Your task to perform on an android device: turn on priority inbox in the gmail app Image 0: 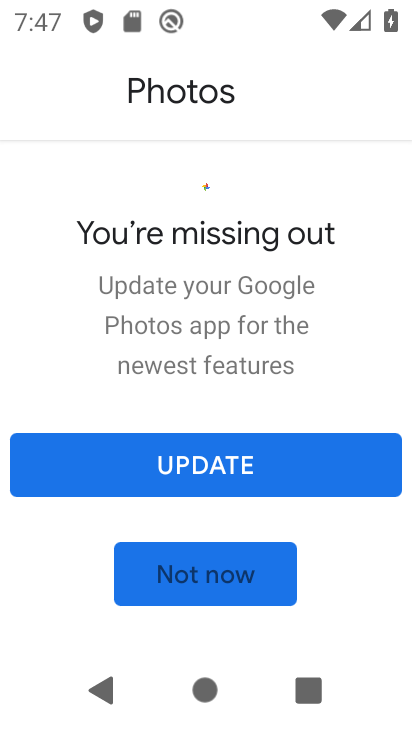
Step 0: press home button
Your task to perform on an android device: turn on priority inbox in the gmail app Image 1: 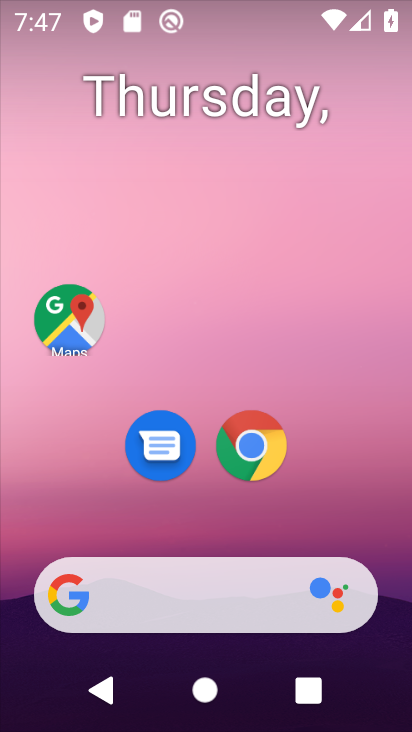
Step 1: drag from (346, 536) to (411, 502)
Your task to perform on an android device: turn on priority inbox in the gmail app Image 2: 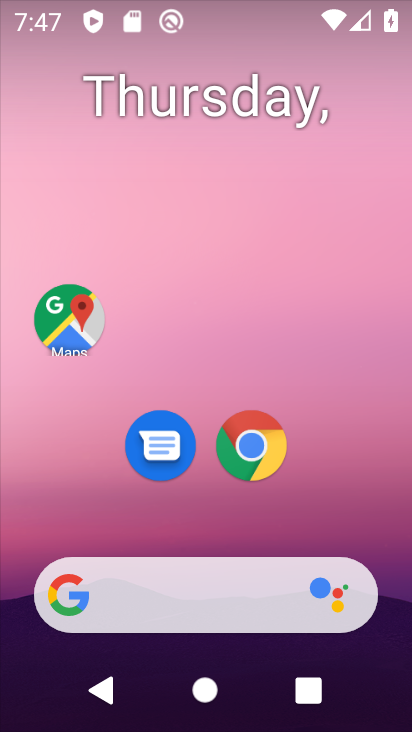
Step 2: drag from (331, 525) to (357, 1)
Your task to perform on an android device: turn on priority inbox in the gmail app Image 3: 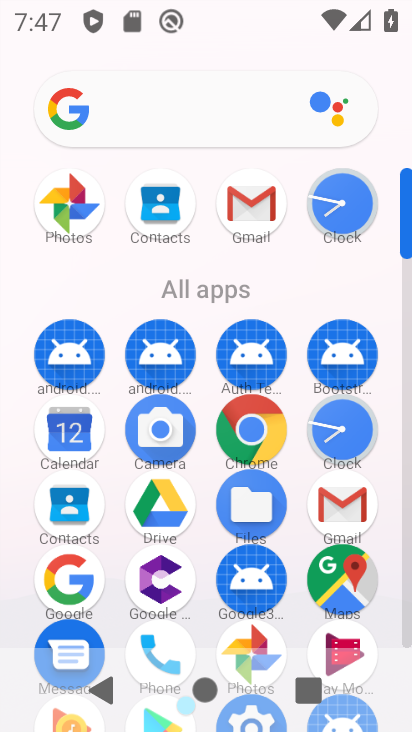
Step 3: click (247, 212)
Your task to perform on an android device: turn on priority inbox in the gmail app Image 4: 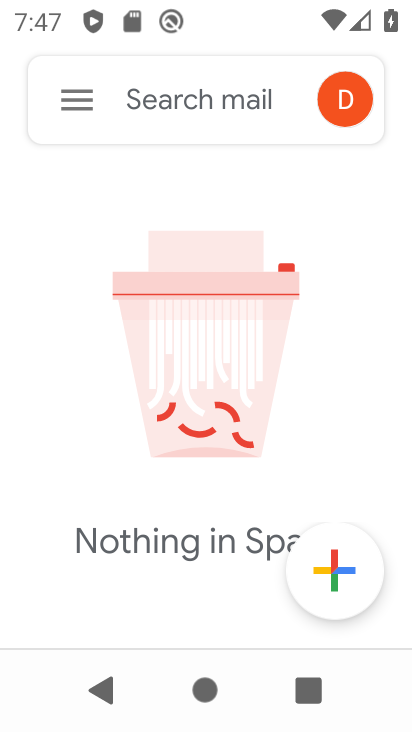
Step 4: click (65, 101)
Your task to perform on an android device: turn on priority inbox in the gmail app Image 5: 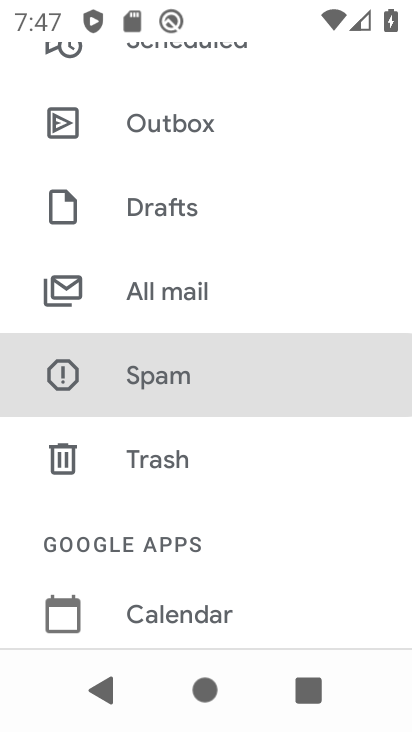
Step 5: drag from (209, 520) to (203, 93)
Your task to perform on an android device: turn on priority inbox in the gmail app Image 6: 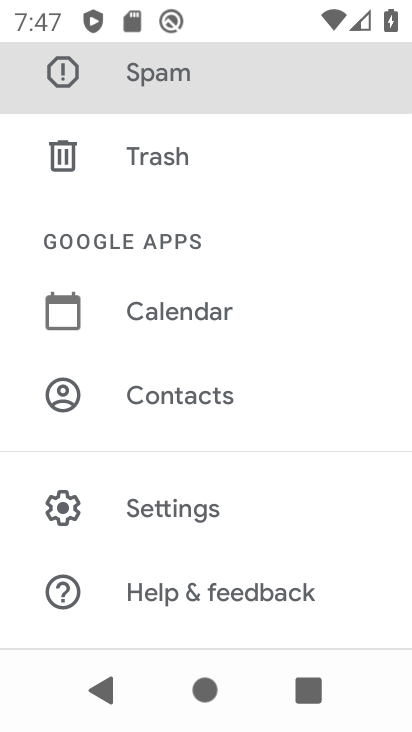
Step 6: click (157, 506)
Your task to perform on an android device: turn on priority inbox in the gmail app Image 7: 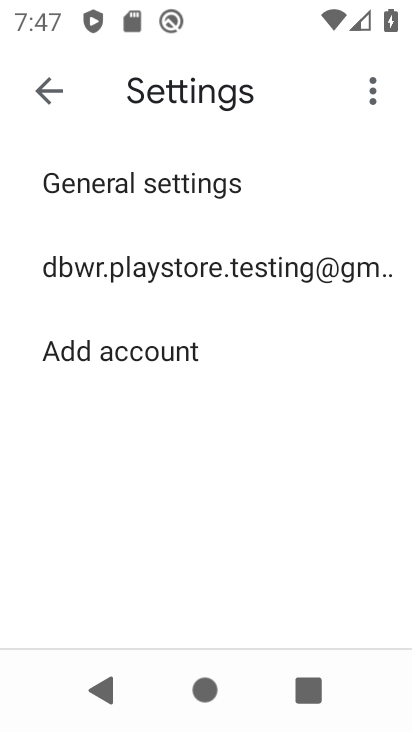
Step 7: click (101, 249)
Your task to perform on an android device: turn on priority inbox in the gmail app Image 8: 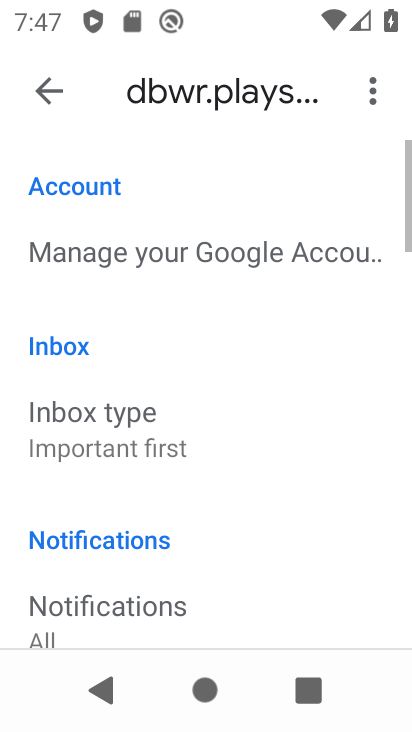
Step 8: click (80, 442)
Your task to perform on an android device: turn on priority inbox in the gmail app Image 9: 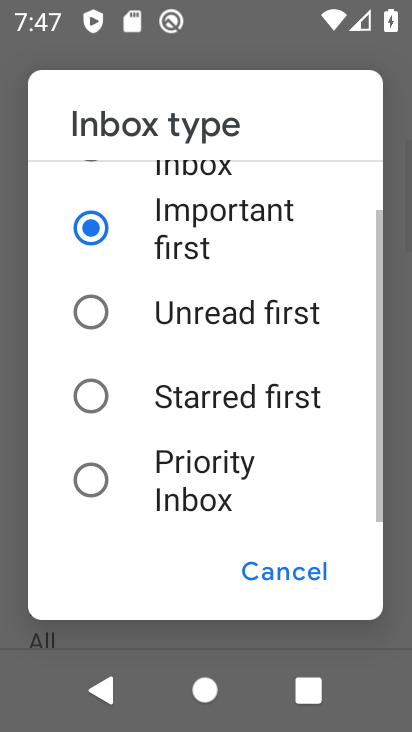
Step 9: click (81, 474)
Your task to perform on an android device: turn on priority inbox in the gmail app Image 10: 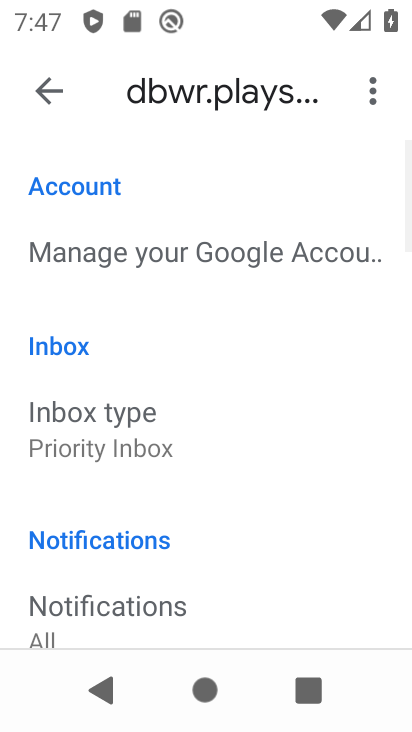
Step 10: task complete